Your task to perform on an android device: Open the phone app and click the voicemail tab. Image 0: 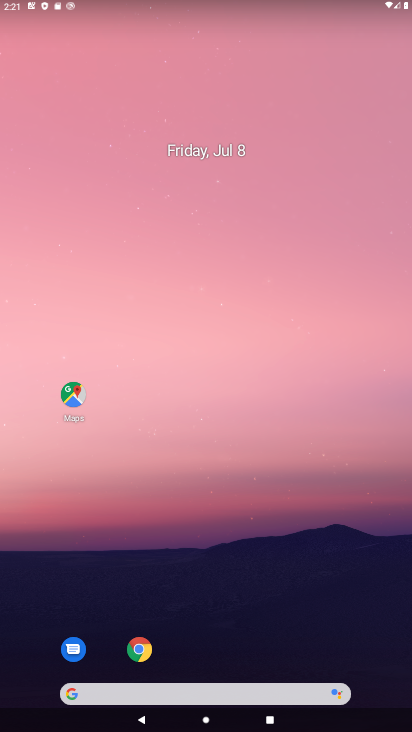
Step 0: drag from (371, 644) to (321, 74)
Your task to perform on an android device: Open the phone app and click the voicemail tab. Image 1: 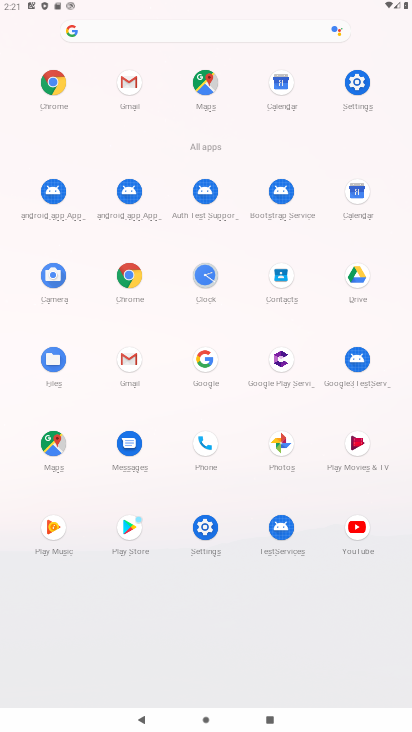
Step 1: click (203, 447)
Your task to perform on an android device: Open the phone app and click the voicemail tab. Image 2: 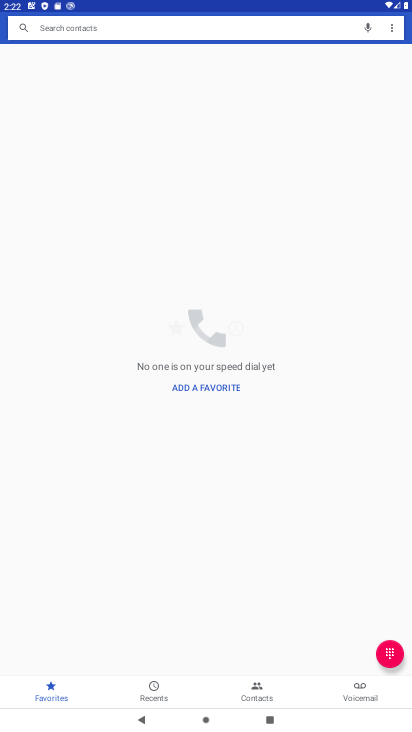
Step 2: click (355, 695)
Your task to perform on an android device: Open the phone app and click the voicemail tab. Image 3: 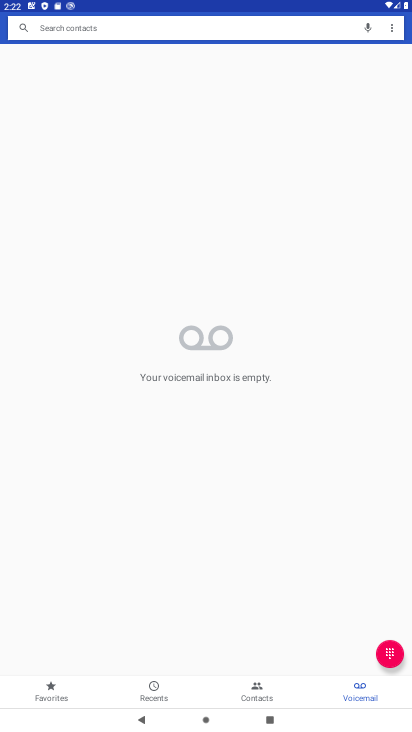
Step 3: task complete